Your task to perform on an android device: turn notification dots on Image 0: 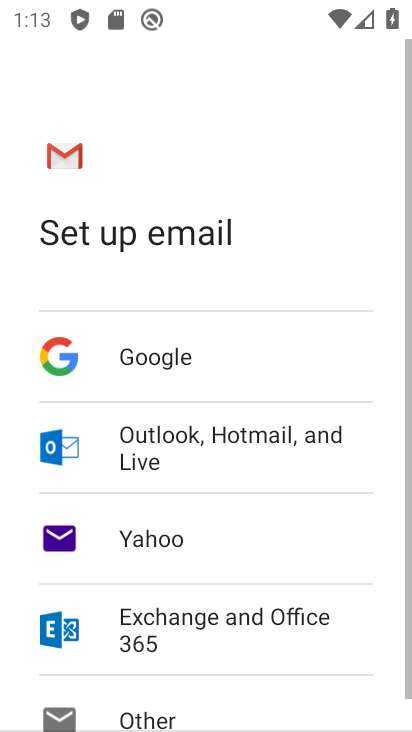
Step 0: press home button
Your task to perform on an android device: turn notification dots on Image 1: 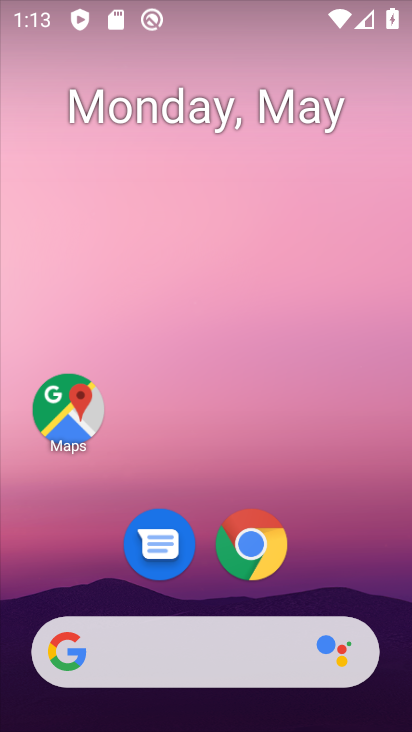
Step 1: drag from (369, 574) to (370, 191)
Your task to perform on an android device: turn notification dots on Image 2: 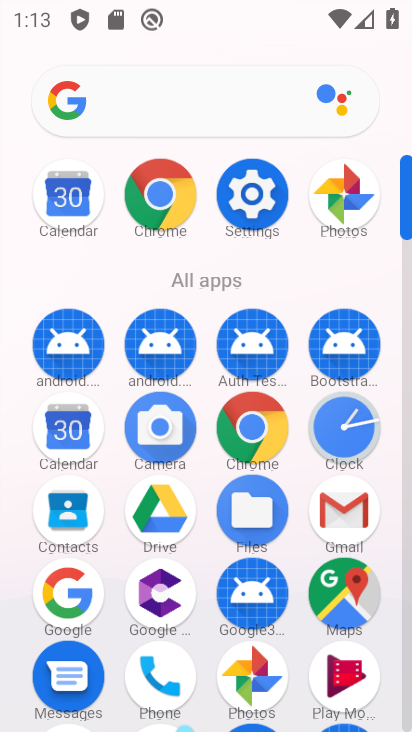
Step 2: click (267, 218)
Your task to perform on an android device: turn notification dots on Image 3: 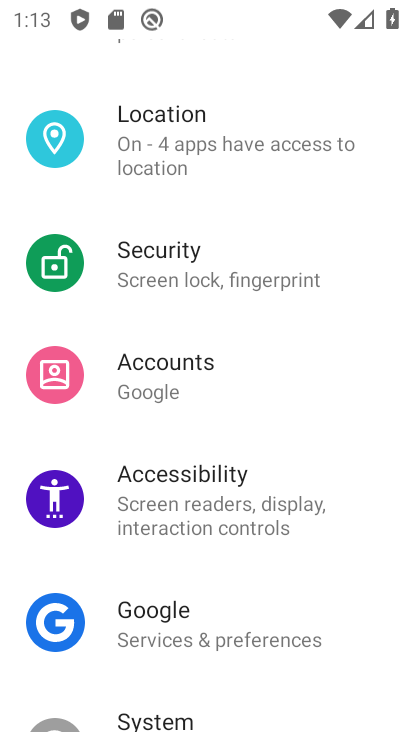
Step 3: drag from (340, 581) to (366, 372)
Your task to perform on an android device: turn notification dots on Image 4: 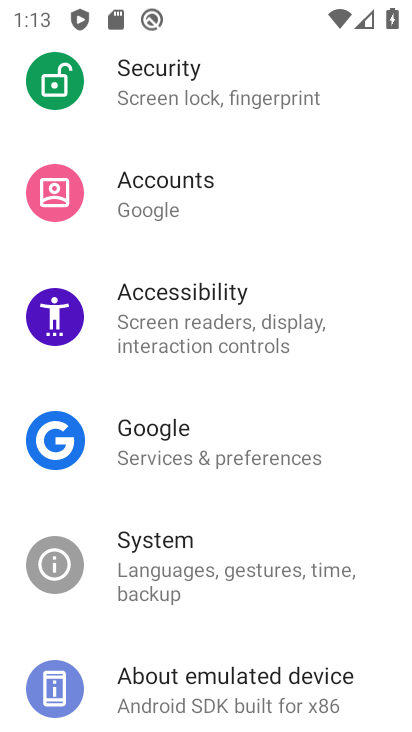
Step 4: drag from (335, 247) to (337, 338)
Your task to perform on an android device: turn notification dots on Image 5: 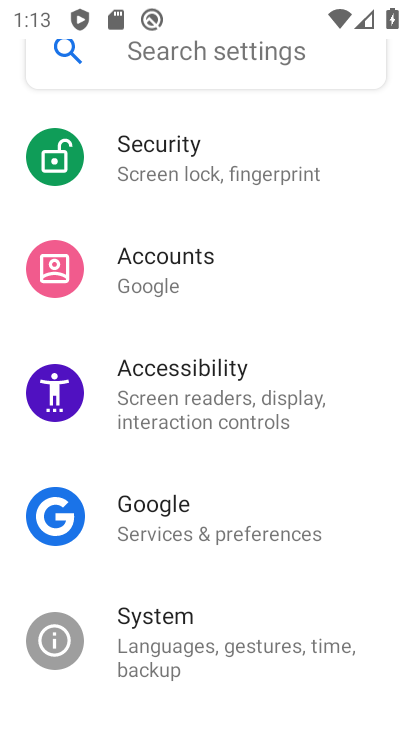
Step 5: drag from (345, 245) to (342, 342)
Your task to perform on an android device: turn notification dots on Image 6: 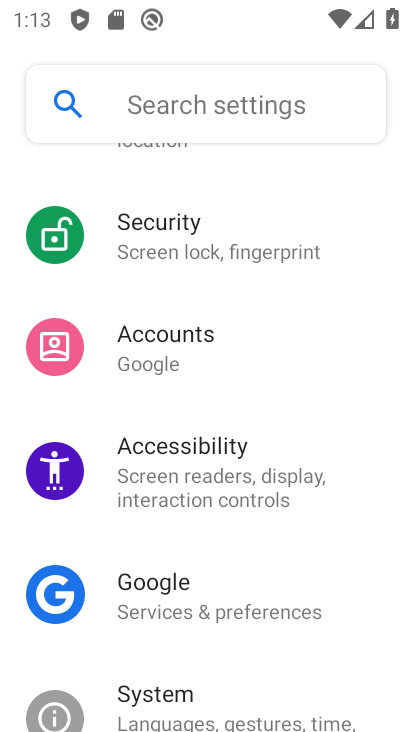
Step 6: drag from (359, 228) to (356, 335)
Your task to perform on an android device: turn notification dots on Image 7: 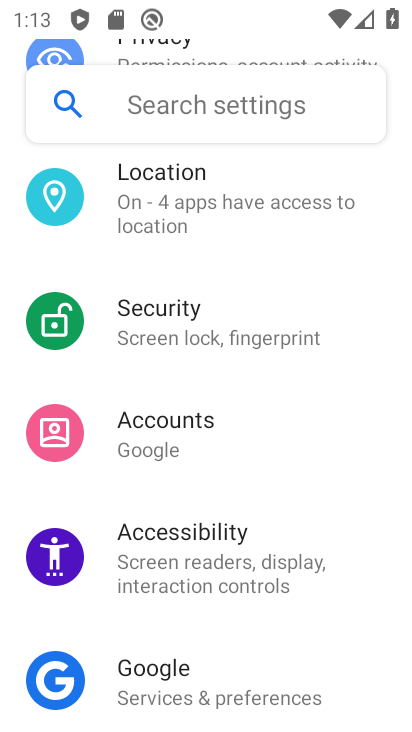
Step 7: drag from (377, 213) to (358, 361)
Your task to perform on an android device: turn notification dots on Image 8: 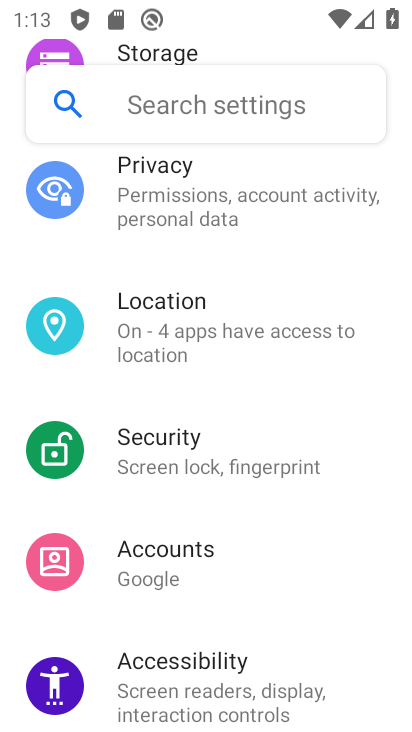
Step 8: drag from (379, 258) to (397, 378)
Your task to perform on an android device: turn notification dots on Image 9: 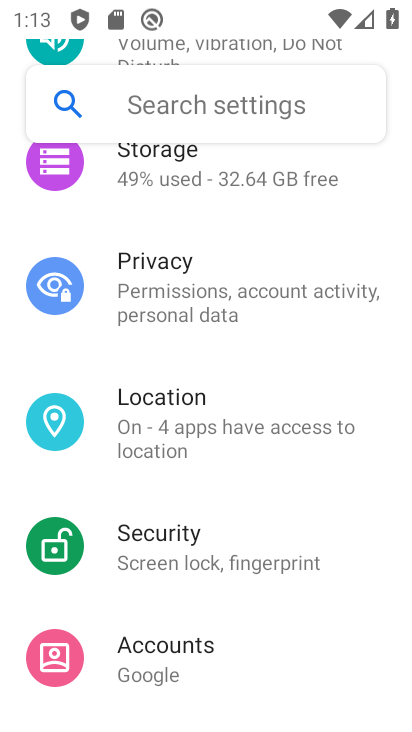
Step 9: drag from (377, 248) to (367, 355)
Your task to perform on an android device: turn notification dots on Image 10: 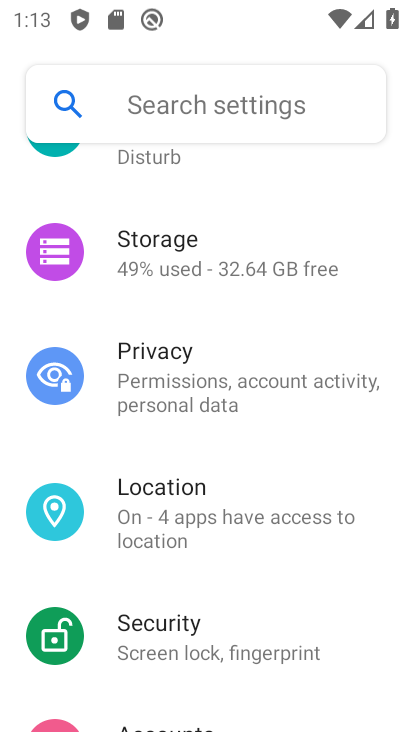
Step 10: drag from (350, 214) to (357, 329)
Your task to perform on an android device: turn notification dots on Image 11: 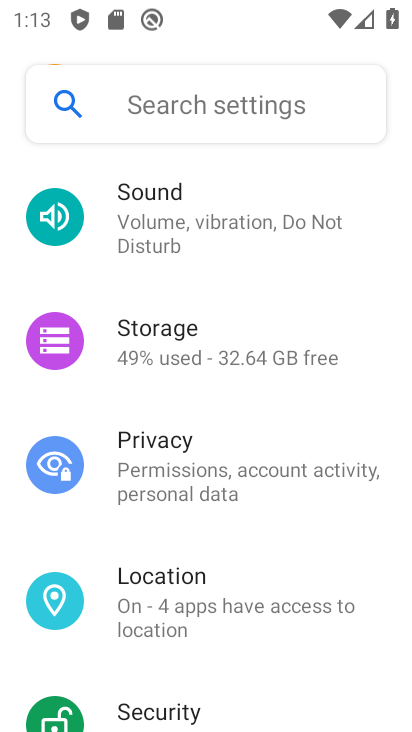
Step 11: drag from (362, 210) to (367, 331)
Your task to perform on an android device: turn notification dots on Image 12: 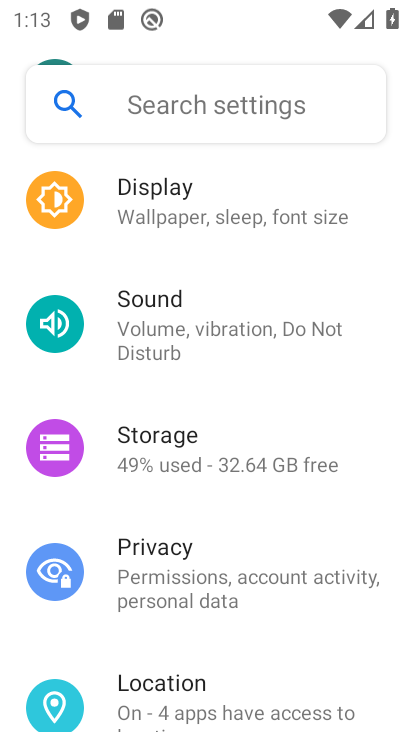
Step 12: drag from (364, 186) to (369, 318)
Your task to perform on an android device: turn notification dots on Image 13: 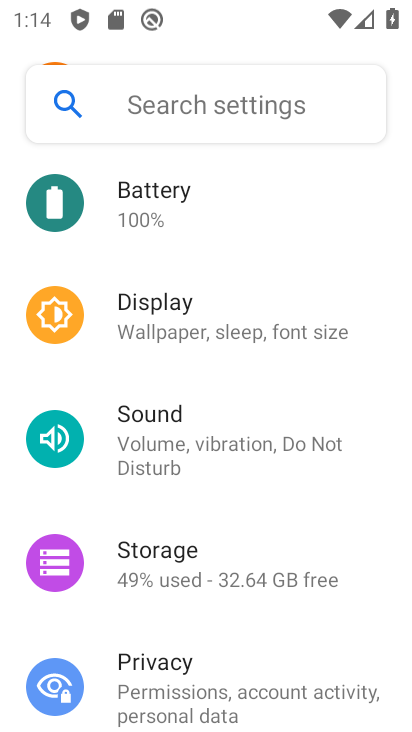
Step 13: drag from (358, 206) to (357, 343)
Your task to perform on an android device: turn notification dots on Image 14: 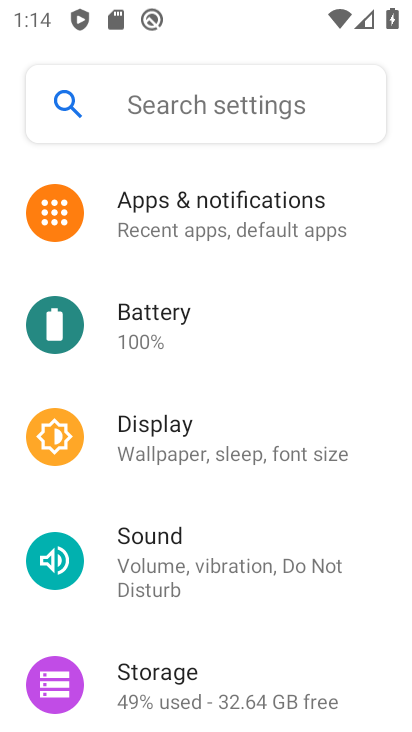
Step 14: drag from (353, 161) to (352, 373)
Your task to perform on an android device: turn notification dots on Image 15: 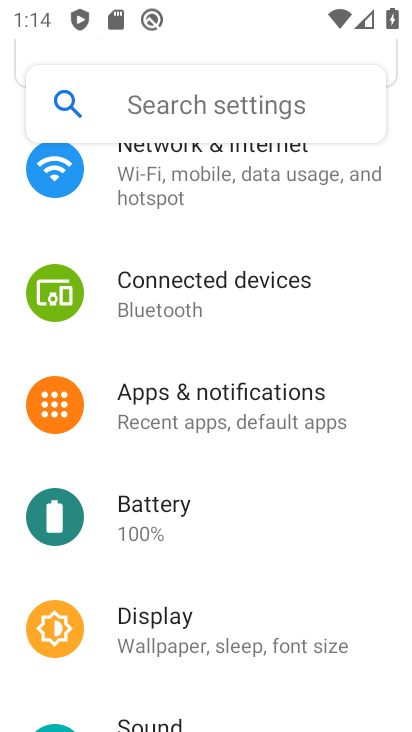
Step 15: click (292, 429)
Your task to perform on an android device: turn notification dots on Image 16: 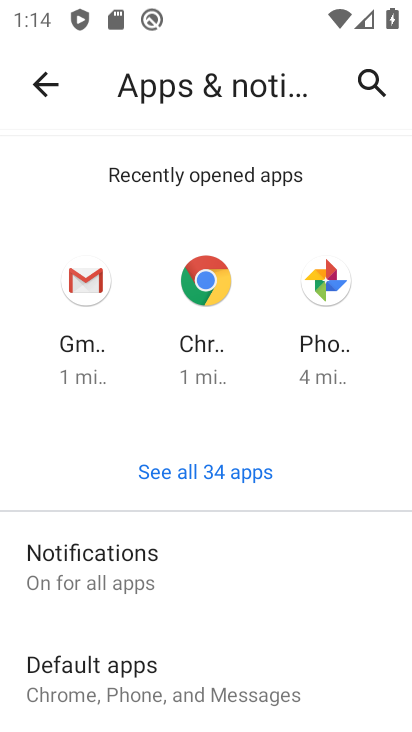
Step 16: click (125, 591)
Your task to perform on an android device: turn notification dots on Image 17: 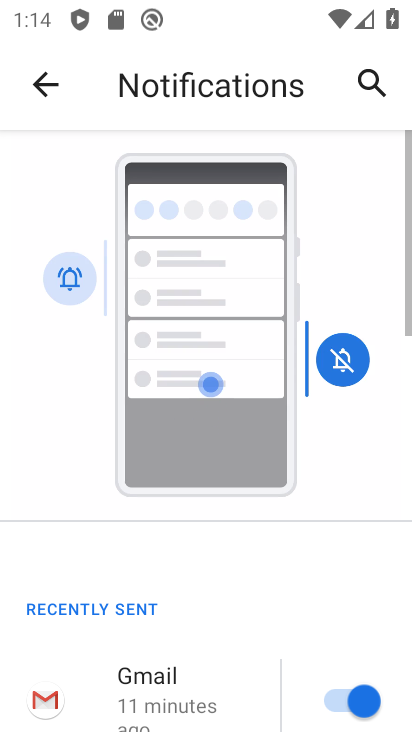
Step 17: drag from (272, 587) to (295, 420)
Your task to perform on an android device: turn notification dots on Image 18: 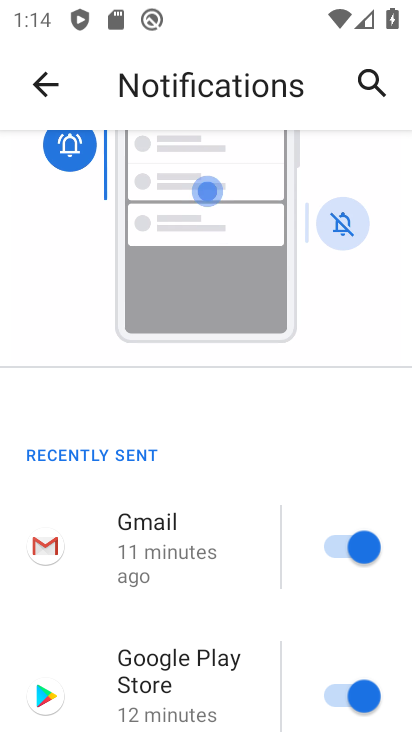
Step 18: drag from (242, 571) to (232, 475)
Your task to perform on an android device: turn notification dots on Image 19: 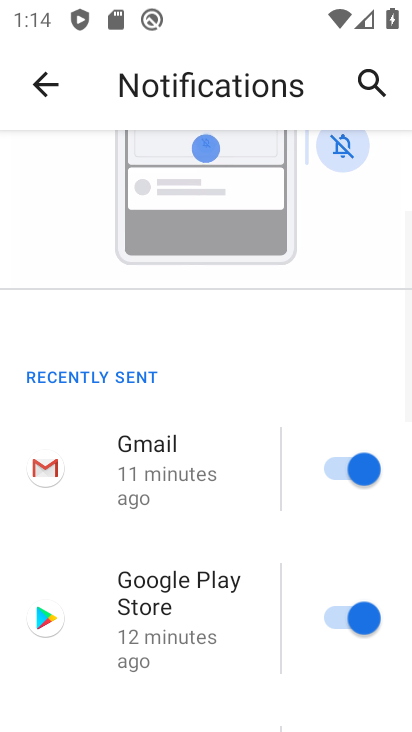
Step 19: drag from (232, 543) to (247, 451)
Your task to perform on an android device: turn notification dots on Image 20: 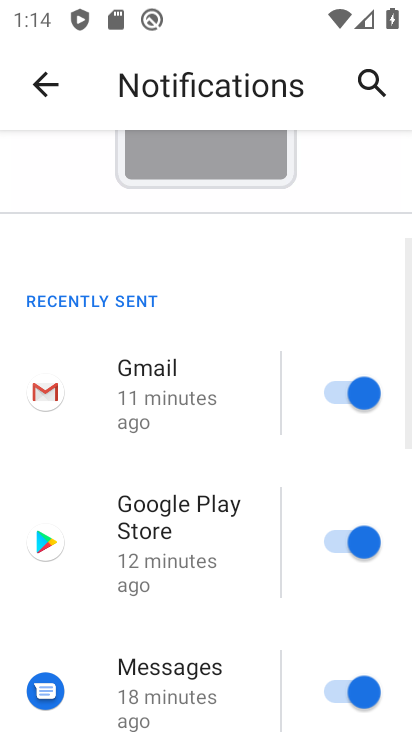
Step 20: drag from (235, 557) to (260, 461)
Your task to perform on an android device: turn notification dots on Image 21: 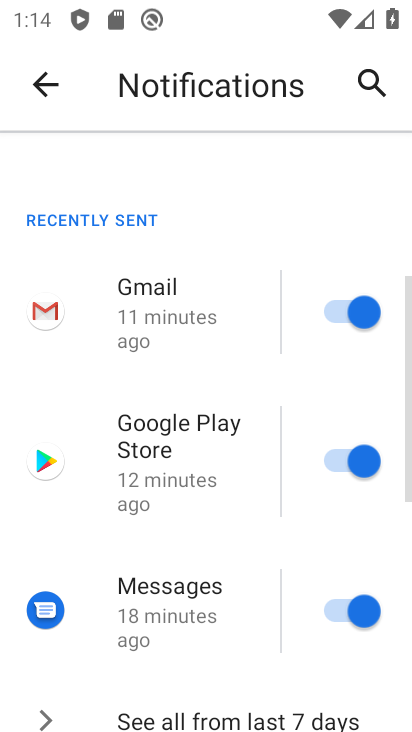
Step 21: drag from (237, 582) to (249, 488)
Your task to perform on an android device: turn notification dots on Image 22: 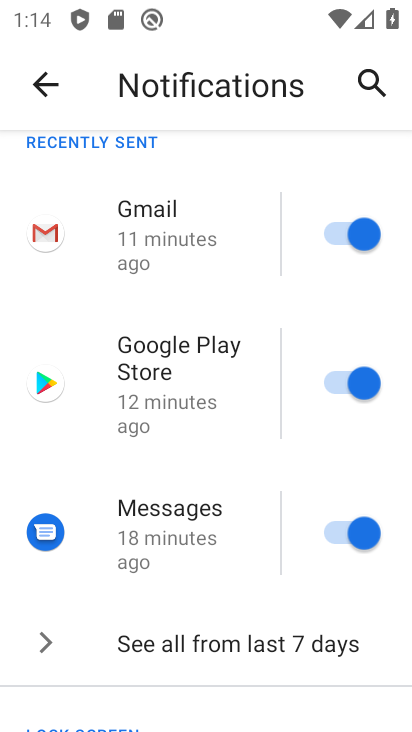
Step 22: drag from (225, 595) to (222, 488)
Your task to perform on an android device: turn notification dots on Image 23: 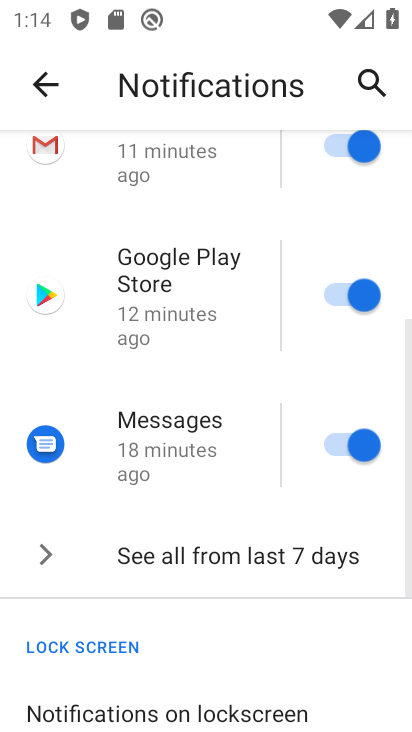
Step 23: drag from (218, 615) to (243, 513)
Your task to perform on an android device: turn notification dots on Image 24: 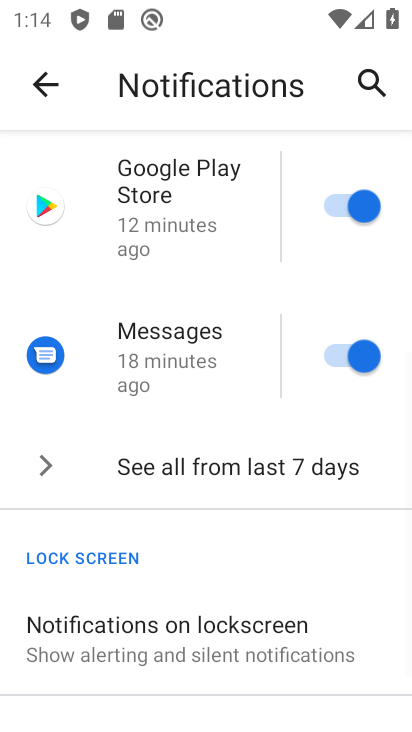
Step 24: drag from (245, 640) to (269, 503)
Your task to perform on an android device: turn notification dots on Image 25: 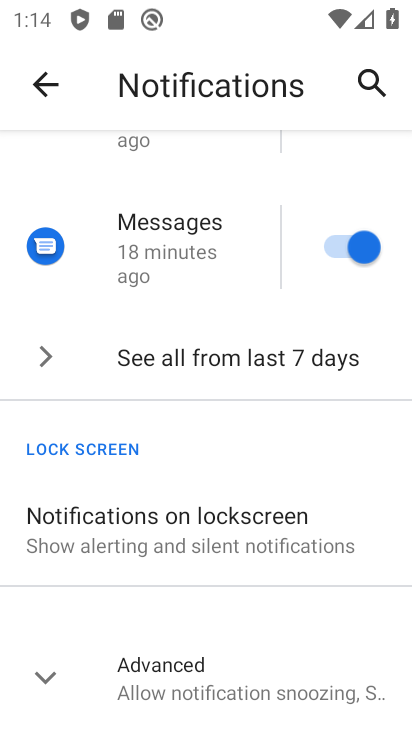
Step 25: click (237, 691)
Your task to perform on an android device: turn notification dots on Image 26: 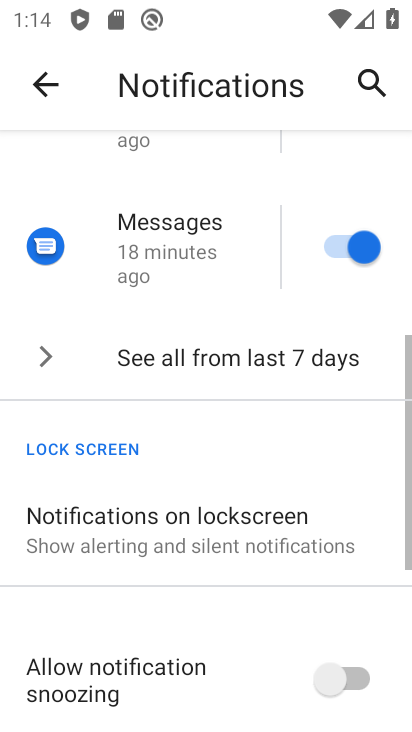
Step 26: task complete